Your task to perform on an android device: set an alarm Image 0: 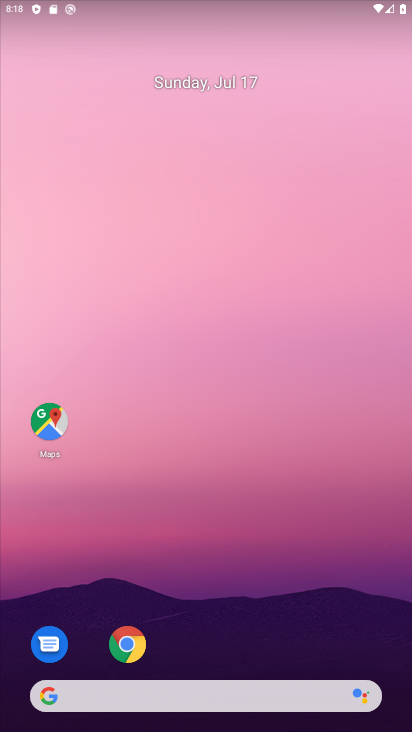
Step 0: drag from (270, 702) to (204, 150)
Your task to perform on an android device: set an alarm Image 1: 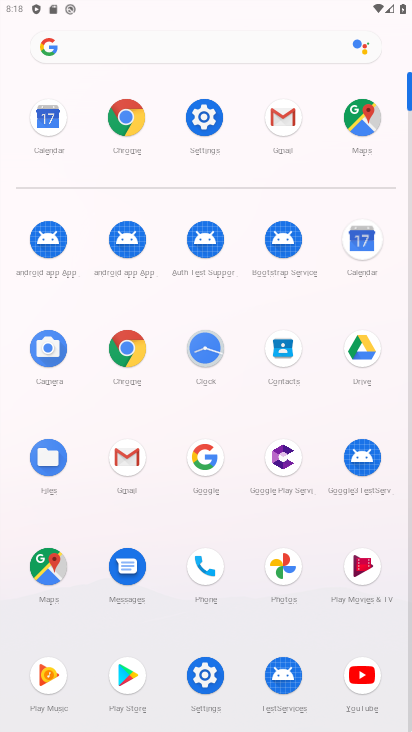
Step 1: click (203, 349)
Your task to perform on an android device: set an alarm Image 2: 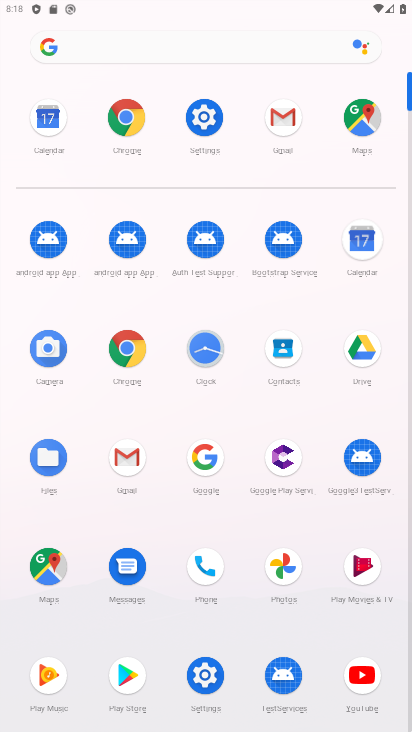
Step 2: click (205, 351)
Your task to perform on an android device: set an alarm Image 3: 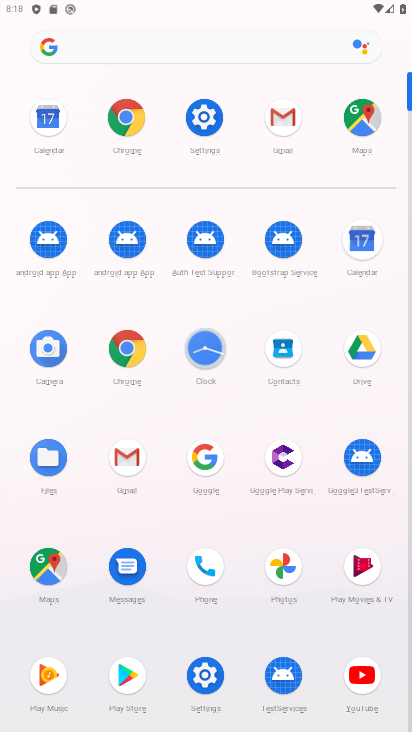
Step 3: click (206, 352)
Your task to perform on an android device: set an alarm Image 4: 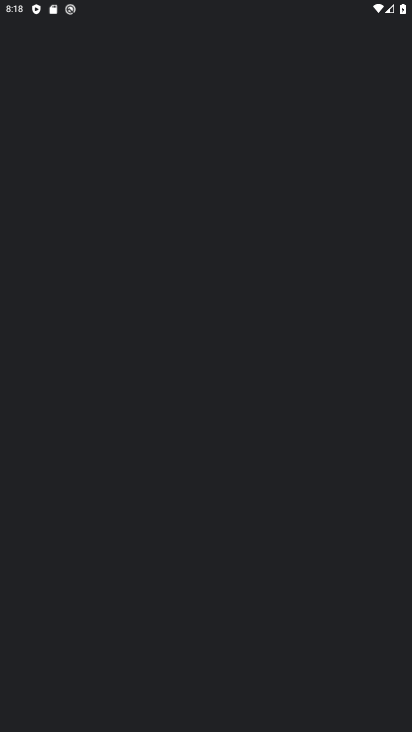
Step 4: click (208, 352)
Your task to perform on an android device: set an alarm Image 5: 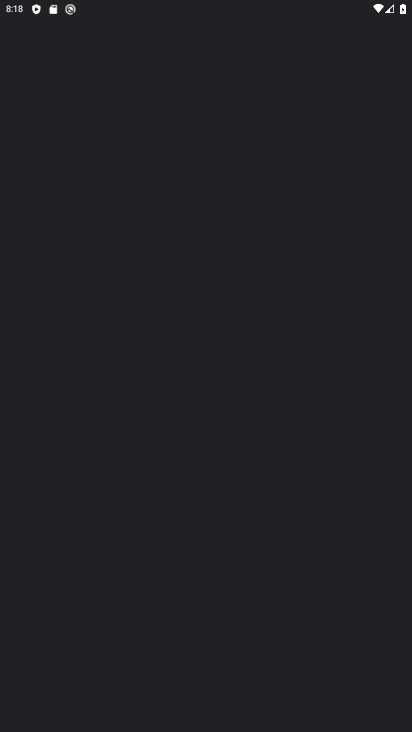
Step 5: click (210, 346)
Your task to perform on an android device: set an alarm Image 6: 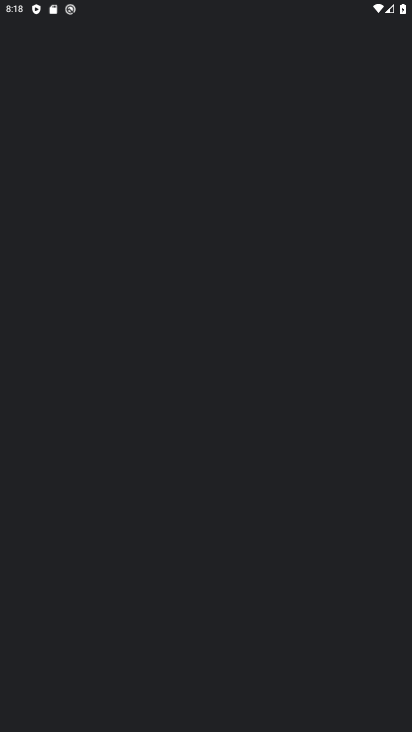
Step 6: click (212, 345)
Your task to perform on an android device: set an alarm Image 7: 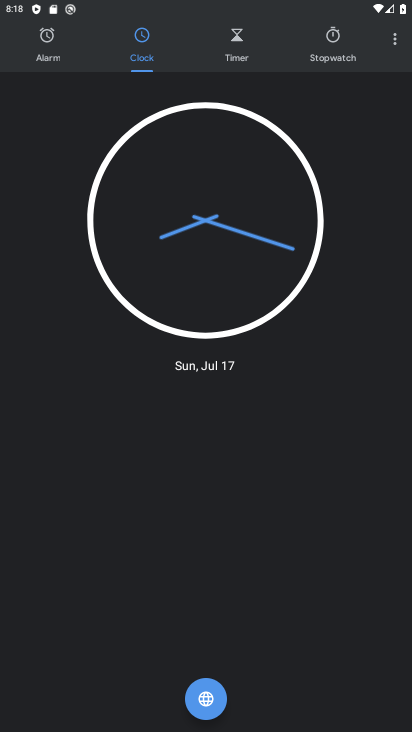
Step 7: click (49, 53)
Your task to perform on an android device: set an alarm Image 8: 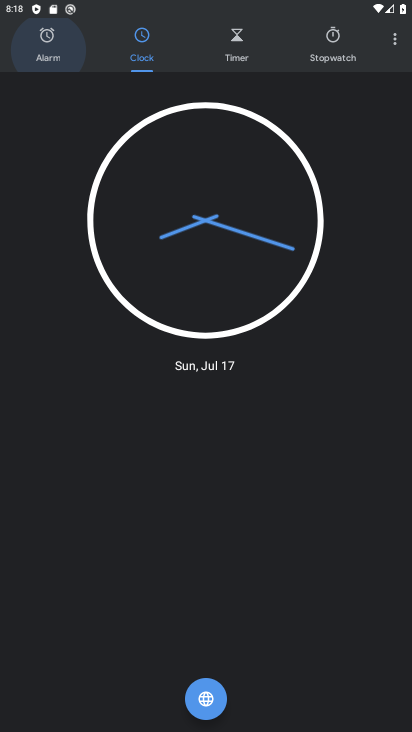
Step 8: click (49, 53)
Your task to perform on an android device: set an alarm Image 9: 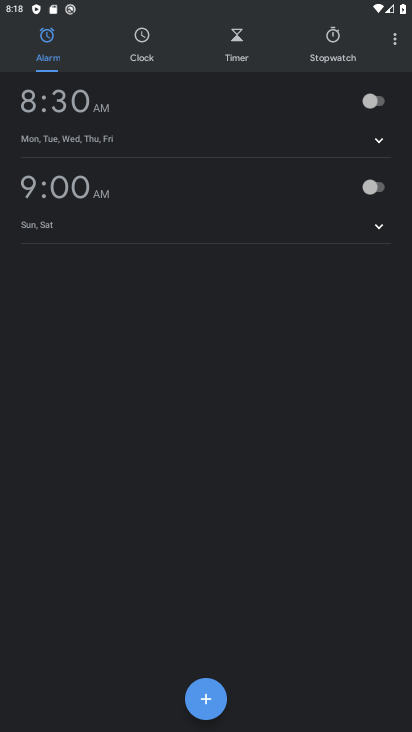
Step 9: click (385, 96)
Your task to perform on an android device: set an alarm Image 10: 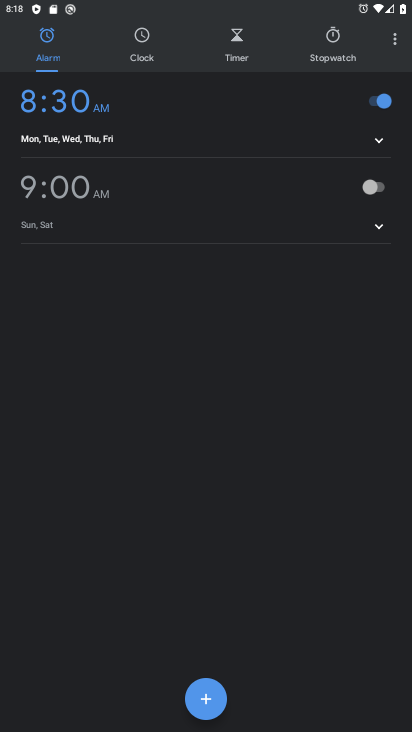
Step 10: task complete